Your task to perform on an android device: clear history in the chrome app Image 0: 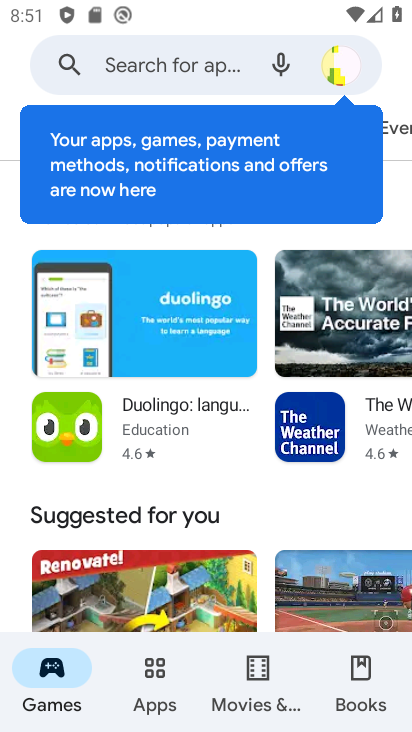
Step 0: press home button
Your task to perform on an android device: clear history in the chrome app Image 1: 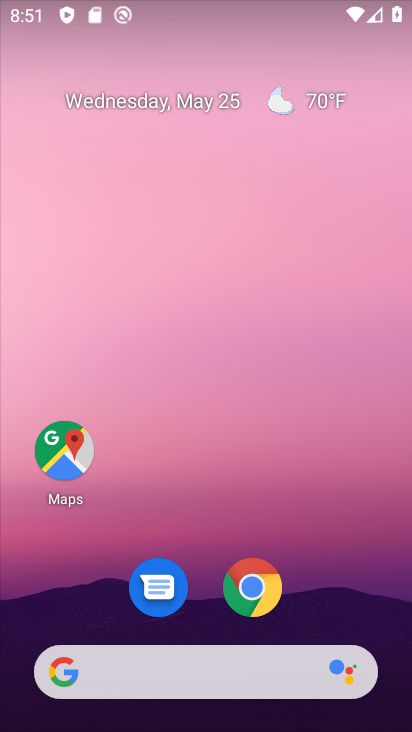
Step 1: click (205, 609)
Your task to perform on an android device: clear history in the chrome app Image 2: 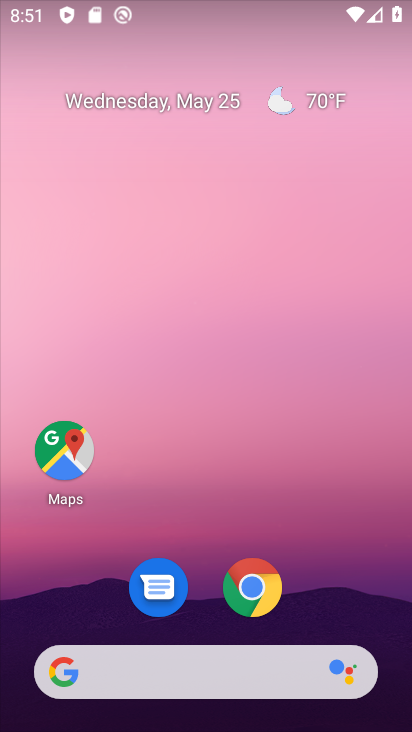
Step 2: click (249, 594)
Your task to perform on an android device: clear history in the chrome app Image 3: 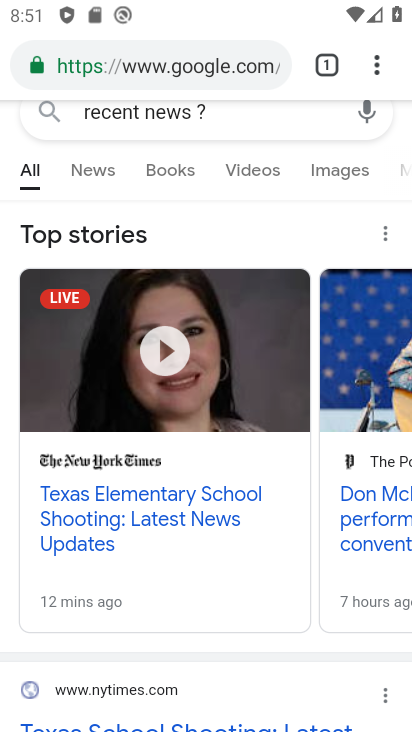
Step 3: click (384, 58)
Your task to perform on an android device: clear history in the chrome app Image 4: 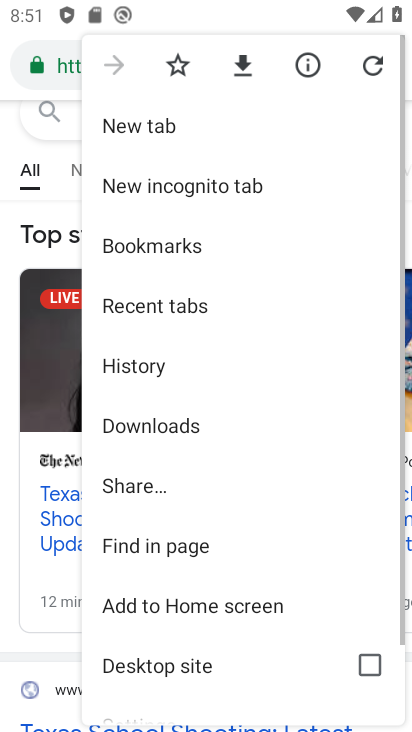
Step 4: click (156, 364)
Your task to perform on an android device: clear history in the chrome app Image 5: 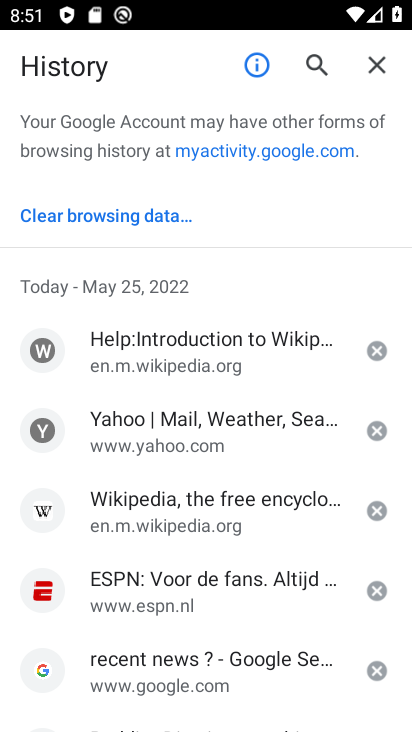
Step 5: click (130, 216)
Your task to perform on an android device: clear history in the chrome app Image 6: 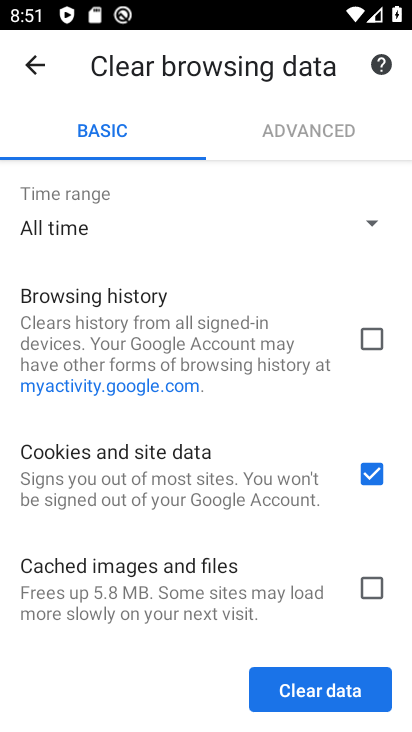
Step 6: drag from (350, 487) to (346, 308)
Your task to perform on an android device: clear history in the chrome app Image 7: 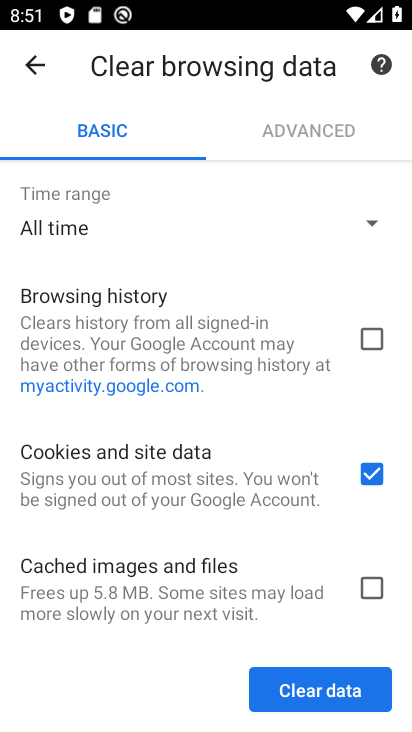
Step 7: click (303, 694)
Your task to perform on an android device: clear history in the chrome app Image 8: 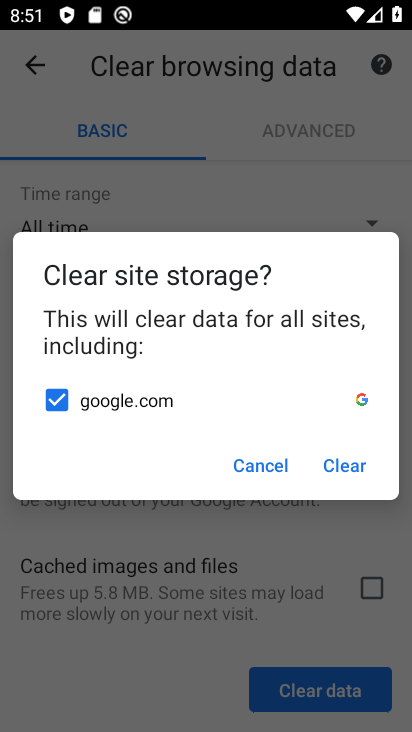
Step 8: click (339, 463)
Your task to perform on an android device: clear history in the chrome app Image 9: 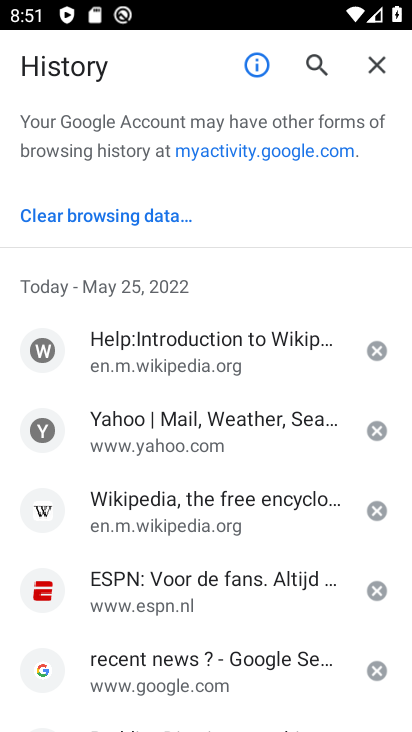
Step 9: task complete